Your task to perform on an android device: What's the weather going to be tomorrow? Image 0: 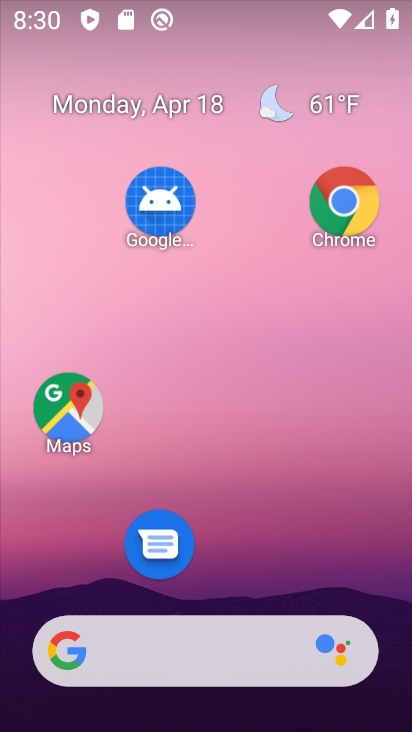
Step 0: click (203, 629)
Your task to perform on an android device: What's the weather going to be tomorrow? Image 1: 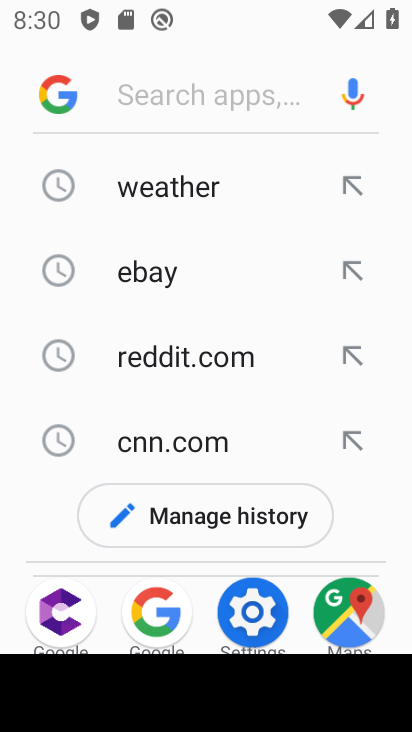
Step 1: click (126, 190)
Your task to perform on an android device: What's the weather going to be tomorrow? Image 2: 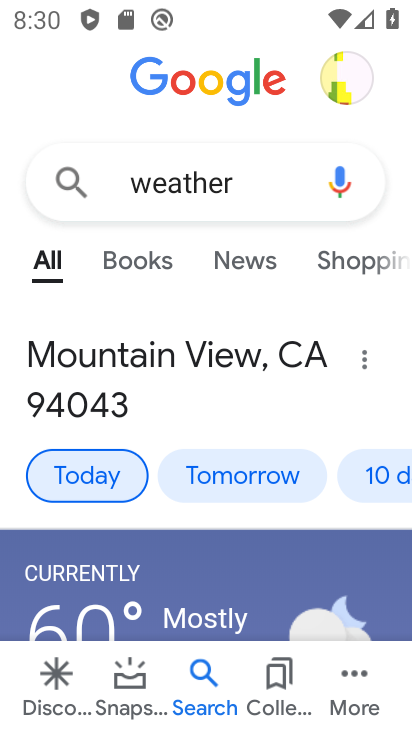
Step 2: drag from (188, 575) to (140, 168)
Your task to perform on an android device: What's the weather going to be tomorrow? Image 3: 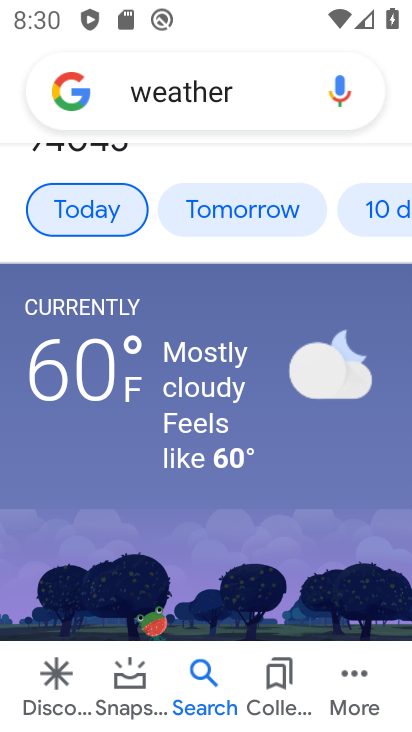
Step 3: click (203, 193)
Your task to perform on an android device: What's the weather going to be tomorrow? Image 4: 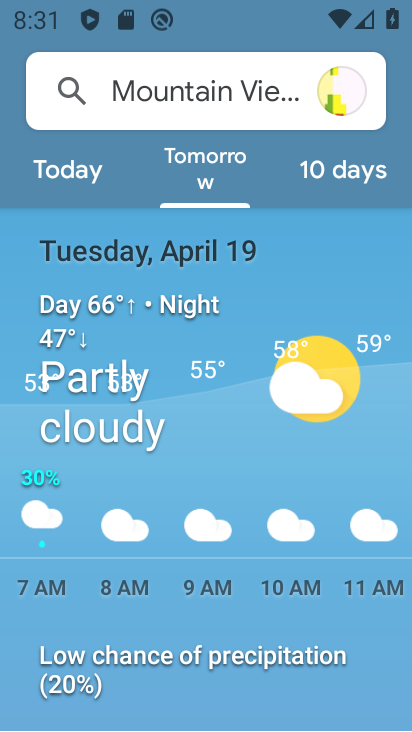
Step 4: task complete